Your task to perform on an android device: Open Yahoo.com Image 0: 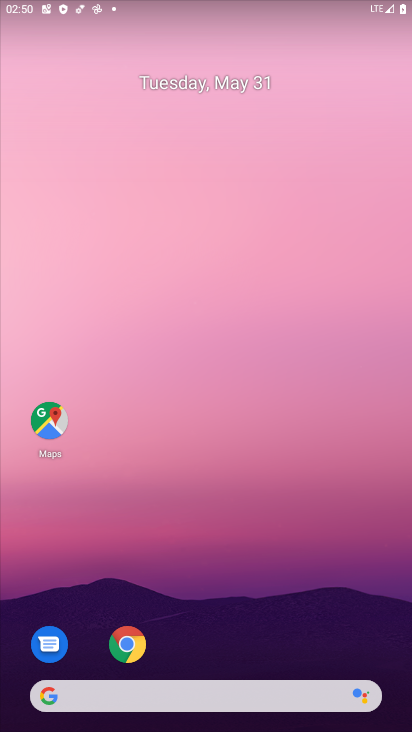
Step 0: drag from (284, 575) to (275, 164)
Your task to perform on an android device: Open Yahoo.com Image 1: 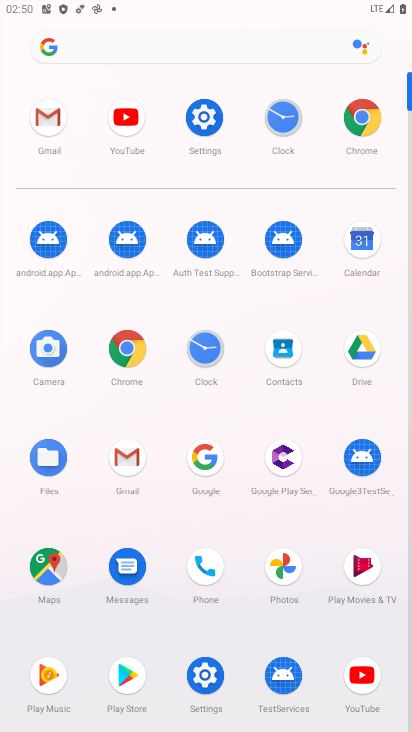
Step 1: click (131, 348)
Your task to perform on an android device: Open Yahoo.com Image 2: 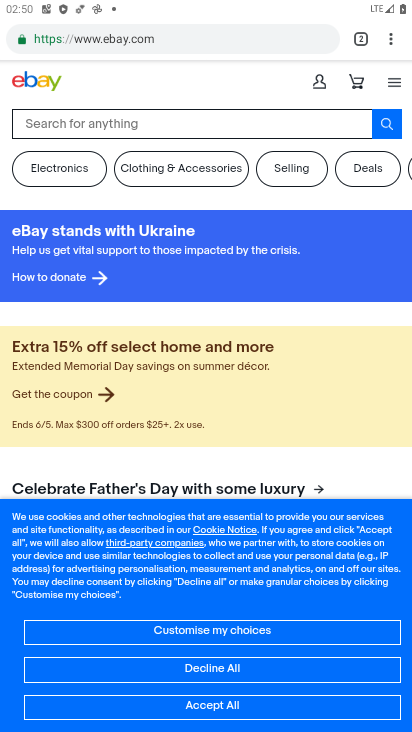
Step 2: click (179, 47)
Your task to perform on an android device: Open Yahoo.com Image 3: 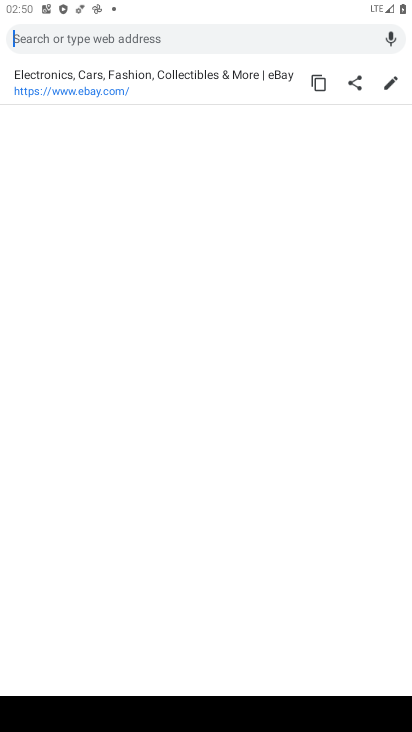
Step 3: type "yahoo.com"
Your task to perform on an android device: Open Yahoo.com Image 4: 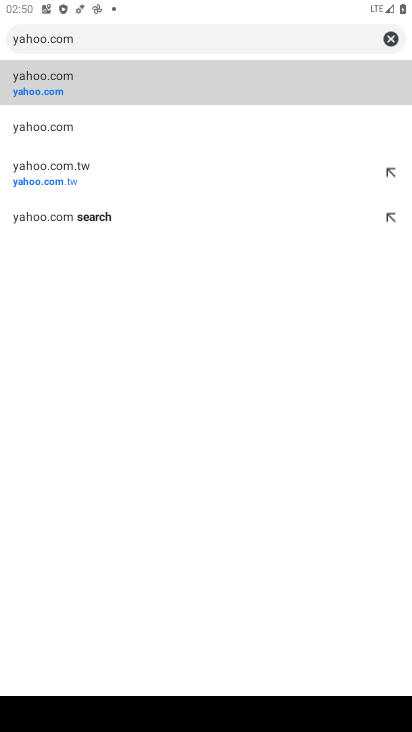
Step 4: click (33, 102)
Your task to perform on an android device: Open Yahoo.com Image 5: 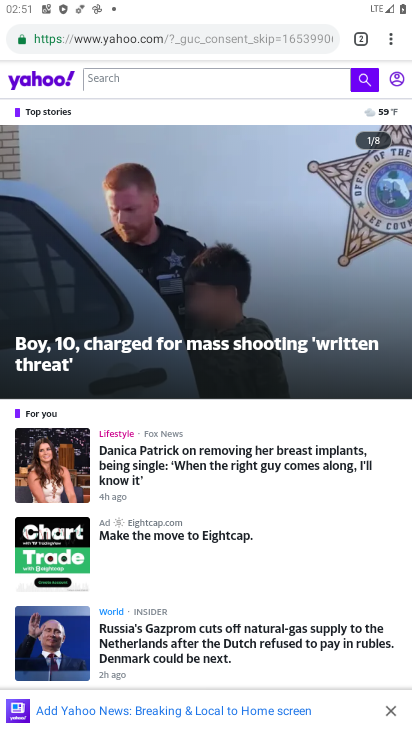
Step 5: task complete